Your task to perform on an android device: What's the news in Argentina? Image 0: 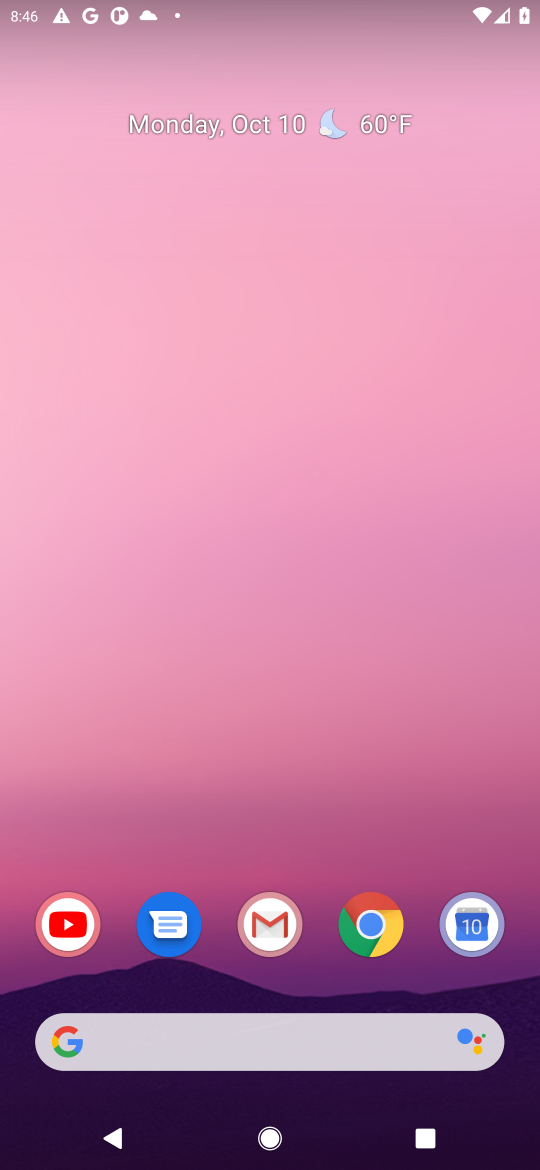
Step 0: drag from (248, 860) to (295, 125)
Your task to perform on an android device: What's the news in Argentina? Image 1: 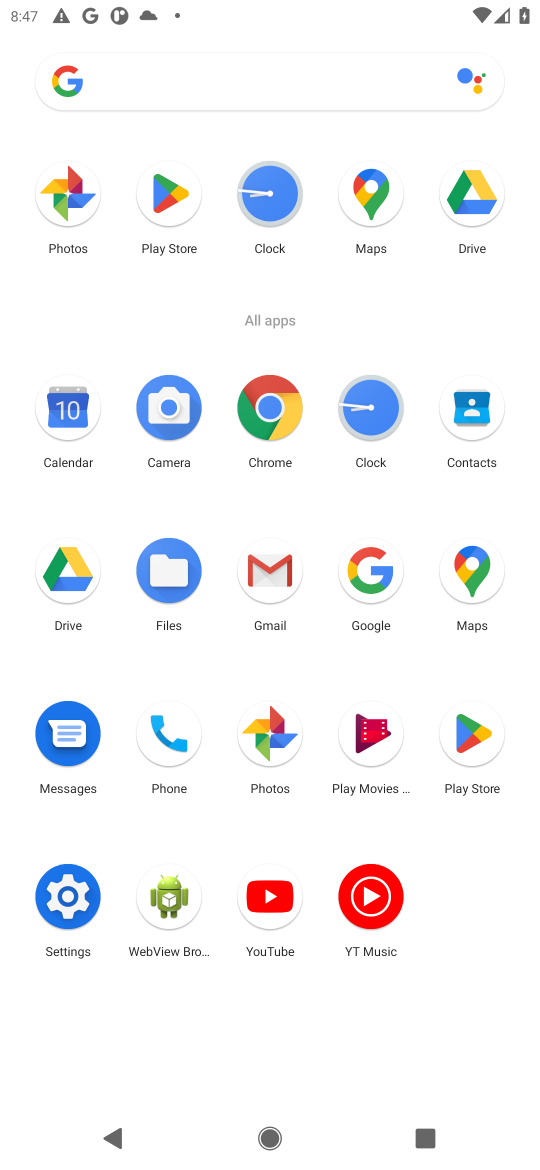
Step 1: click (383, 584)
Your task to perform on an android device: What's the news in Argentina? Image 2: 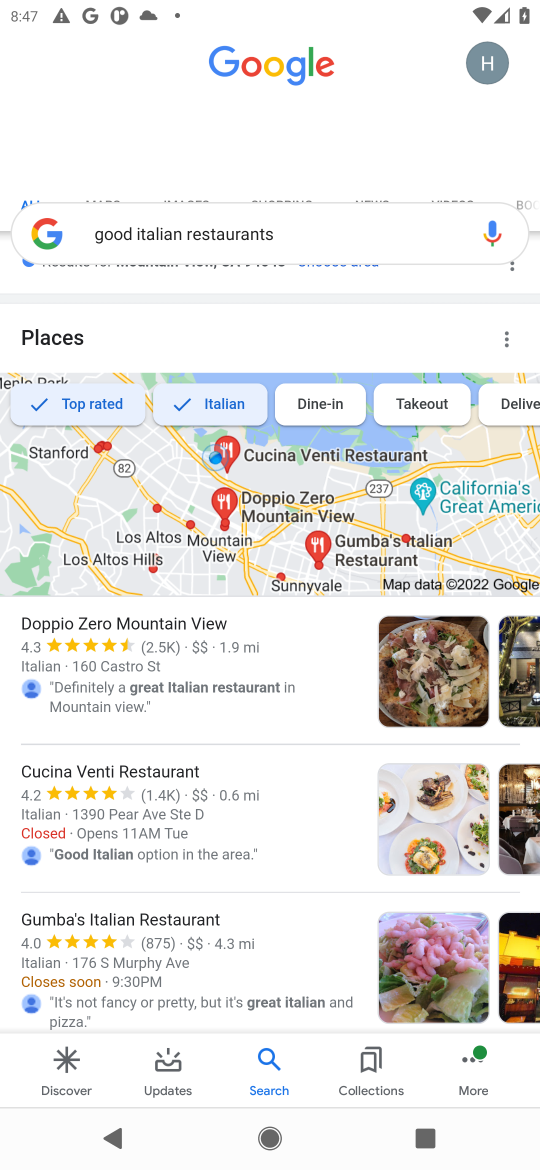
Step 2: click (377, 229)
Your task to perform on an android device: What's the news in Argentina? Image 3: 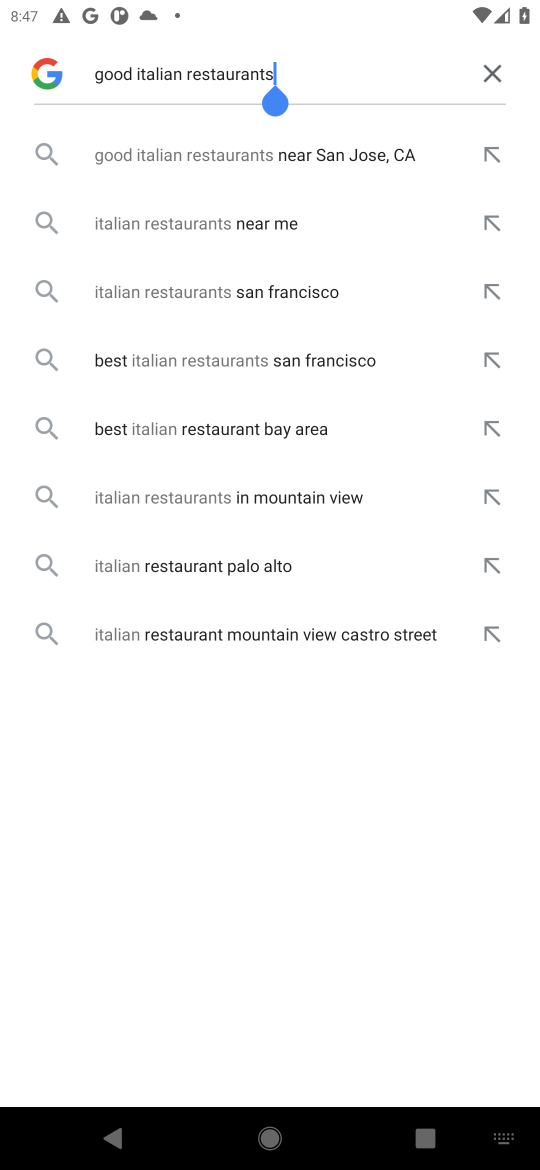
Step 3: click (490, 75)
Your task to perform on an android device: What's the news in Argentina? Image 4: 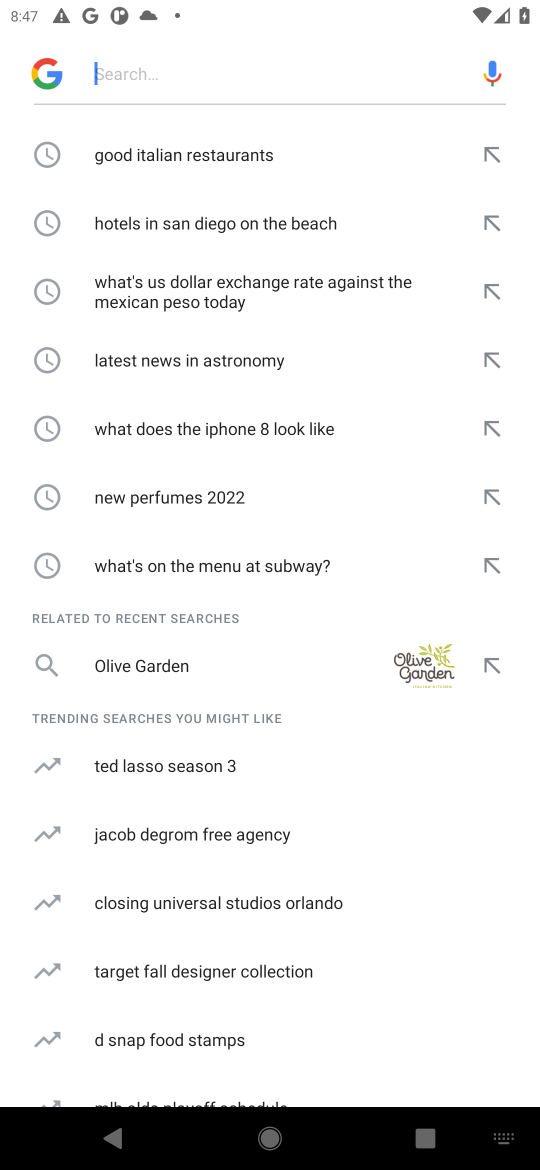
Step 4: type "news in Argentina"
Your task to perform on an android device: What's the news in Argentina? Image 5: 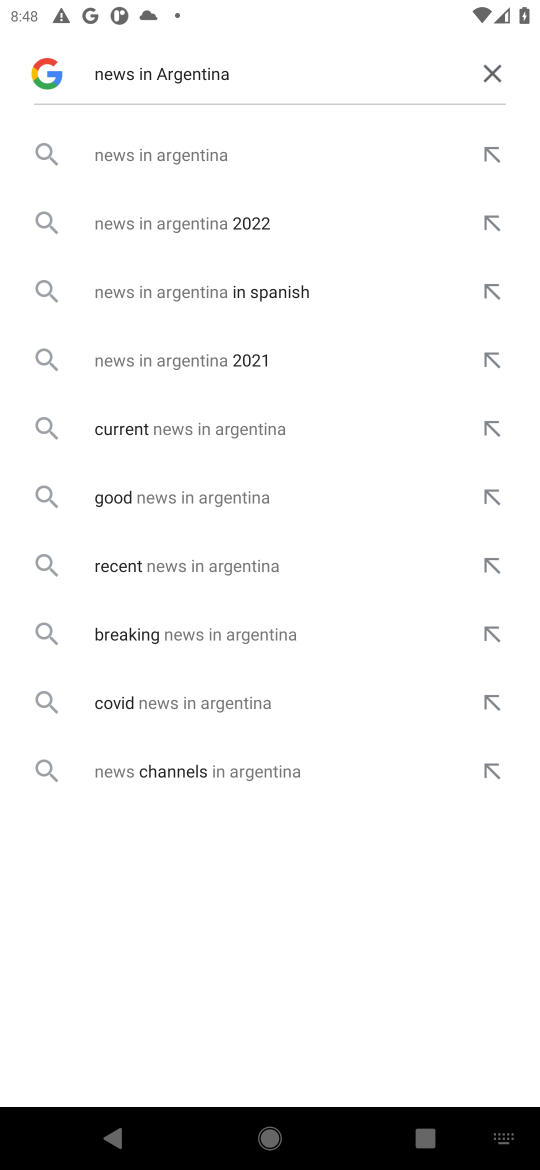
Step 5: click (278, 152)
Your task to perform on an android device: What's the news in Argentina? Image 6: 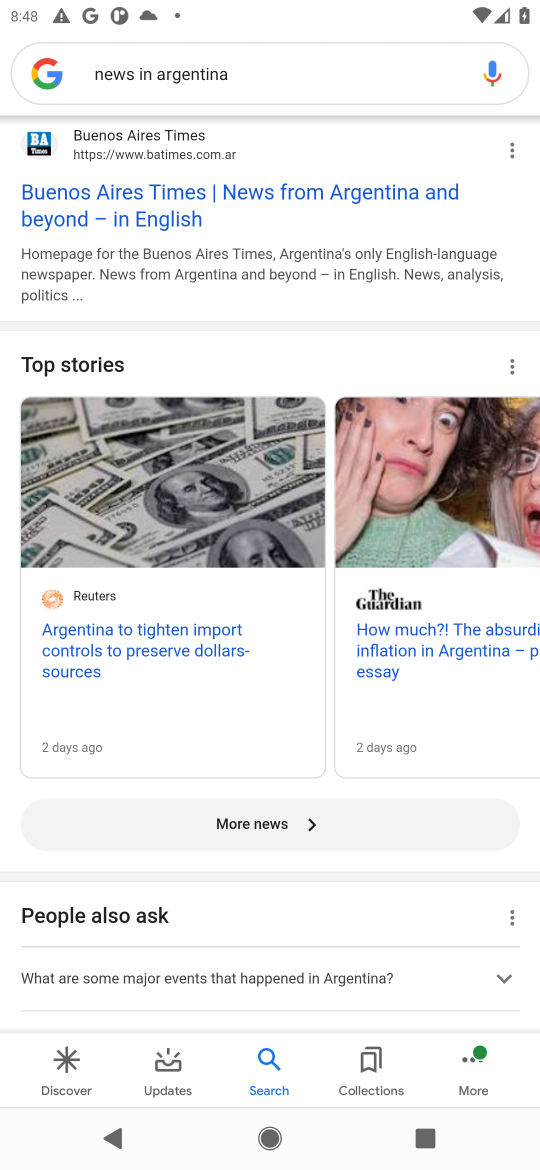
Step 6: task complete